Your task to perform on an android device: Open the stopwatch Image 0: 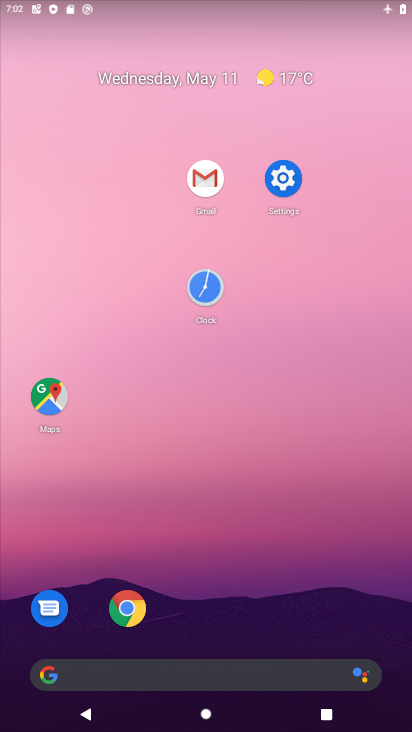
Step 0: click (218, 287)
Your task to perform on an android device: Open the stopwatch Image 1: 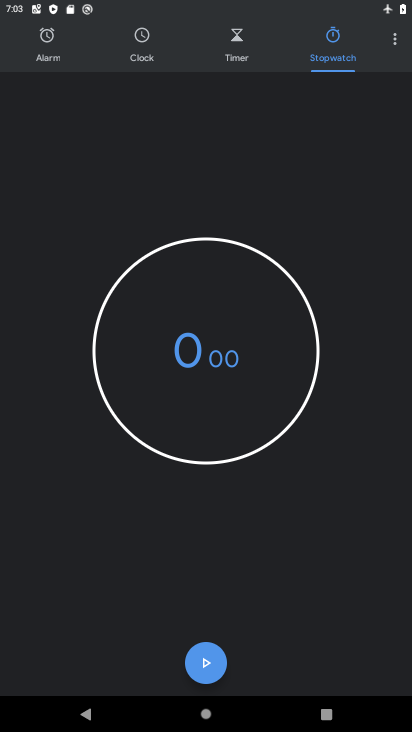
Step 1: task complete